Your task to perform on an android device: visit the assistant section in the google photos Image 0: 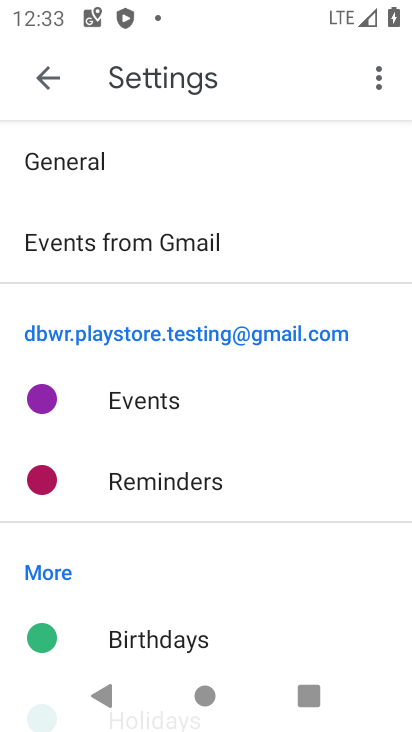
Step 0: press home button
Your task to perform on an android device: visit the assistant section in the google photos Image 1: 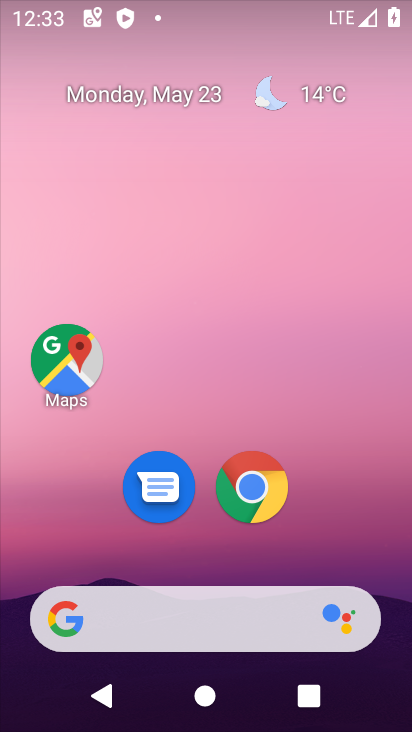
Step 1: click (410, 409)
Your task to perform on an android device: visit the assistant section in the google photos Image 2: 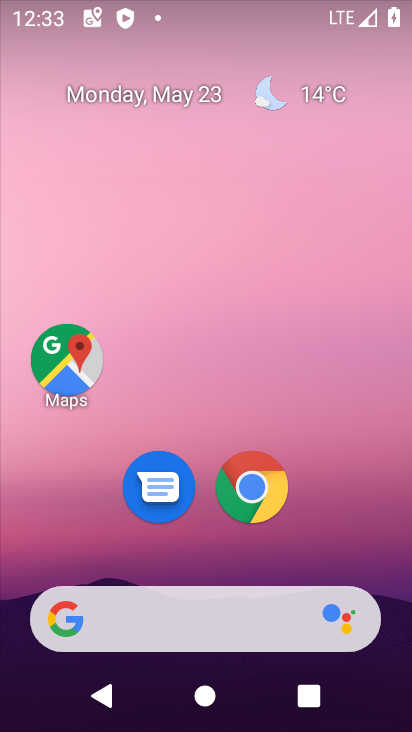
Step 2: drag from (392, 609) to (302, 69)
Your task to perform on an android device: visit the assistant section in the google photos Image 3: 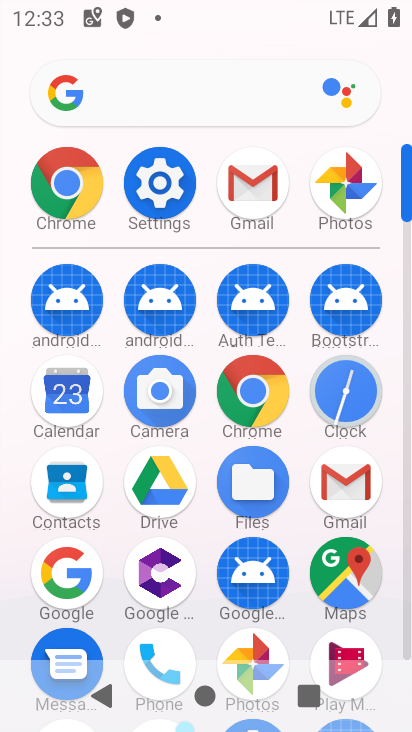
Step 3: click (404, 644)
Your task to perform on an android device: visit the assistant section in the google photos Image 4: 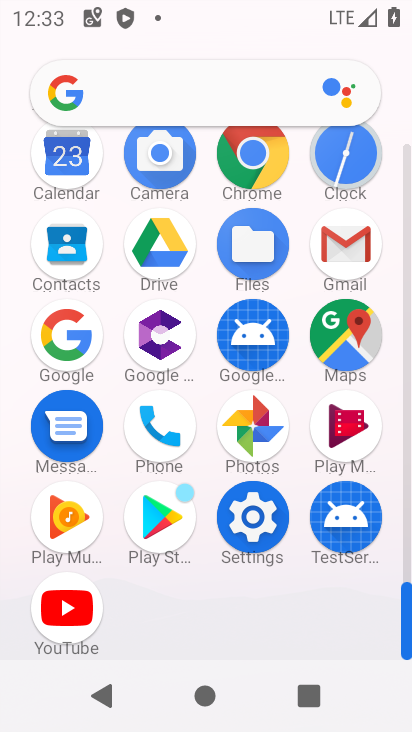
Step 4: click (251, 421)
Your task to perform on an android device: visit the assistant section in the google photos Image 5: 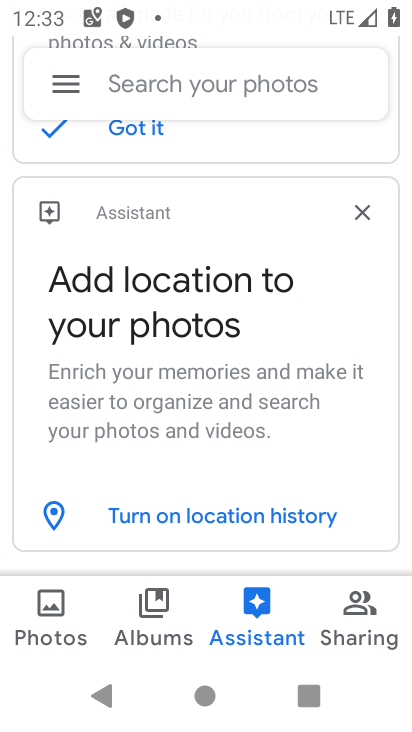
Step 5: task complete